Your task to perform on an android device: When is my next meeting? Image 0: 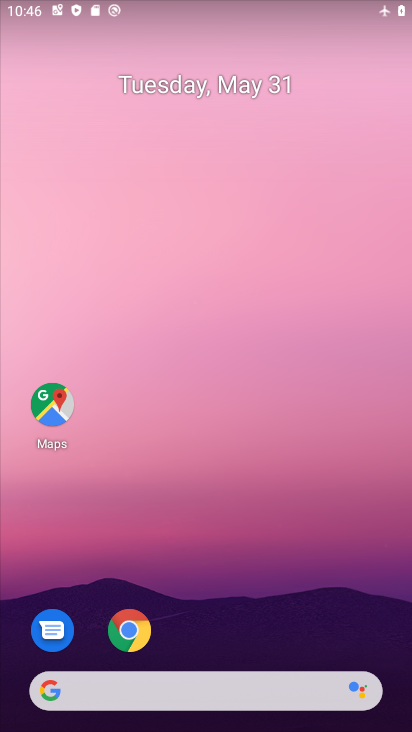
Step 0: drag from (226, 668) to (259, 117)
Your task to perform on an android device: When is my next meeting? Image 1: 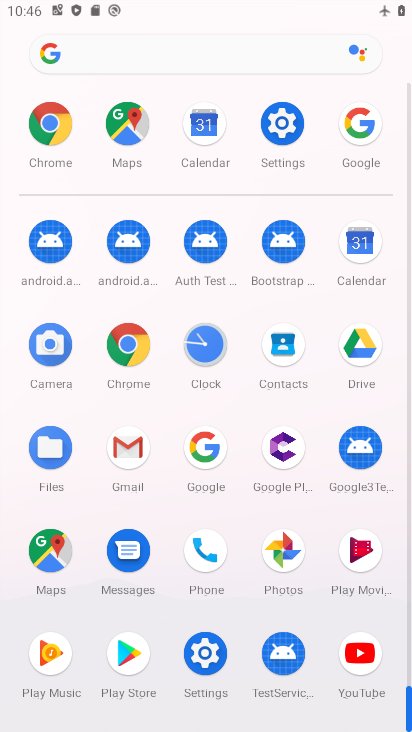
Step 1: click (283, 157)
Your task to perform on an android device: When is my next meeting? Image 2: 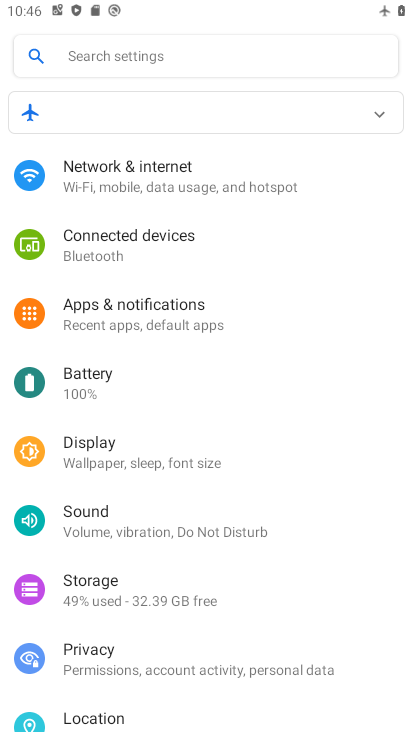
Step 2: drag from (229, 481) to (249, 291)
Your task to perform on an android device: When is my next meeting? Image 3: 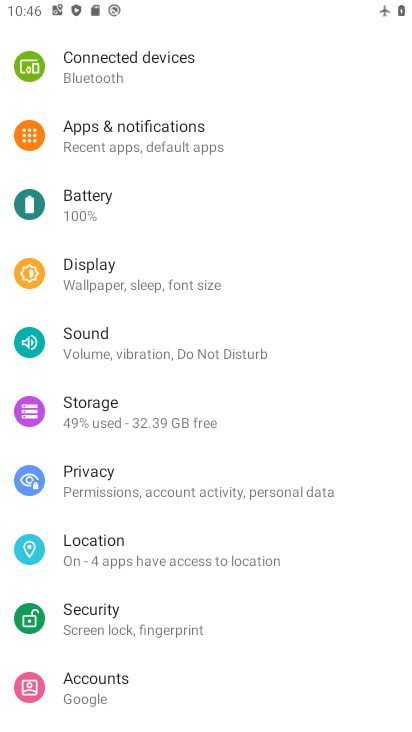
Step 3: press home button
Your task to perform on an android device: When is my next meeting? Image 4: 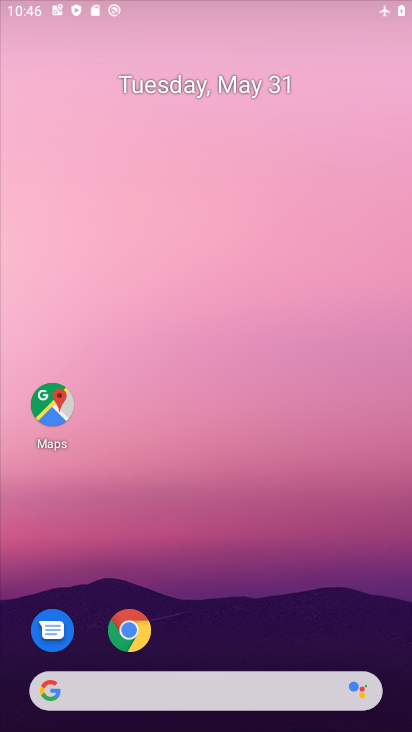
Step 4: drag from (181, 576) to (194, 217)
Your task to perform on an android device: When is my next meeting? Image 5: 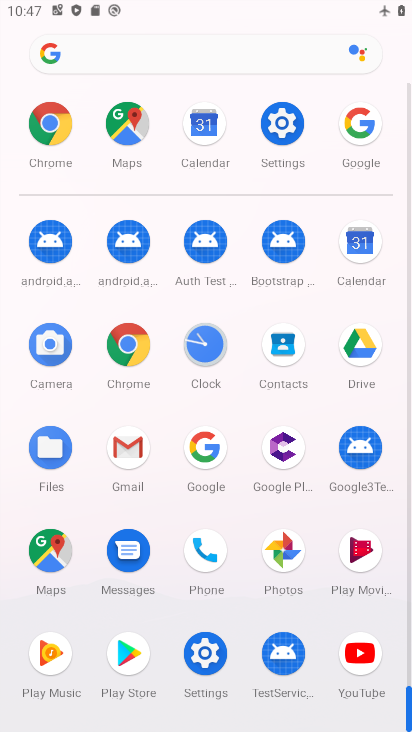
Step 5: click (367, 262)
Your task to perform on an android device: When is my next meeting? Image 6: 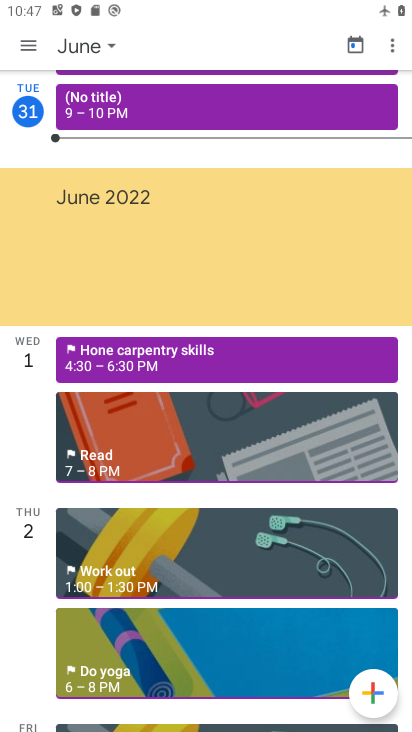
Step 6: click (31, 36)
Your task to perform on an android device: When is my next meeting? Image 7: 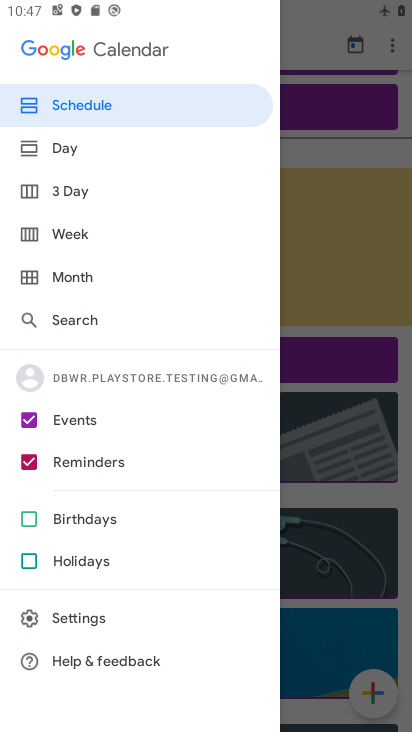
Step 7: click (374, 197)
Your task to perform on an android device: When is my next meeting? Image 8: 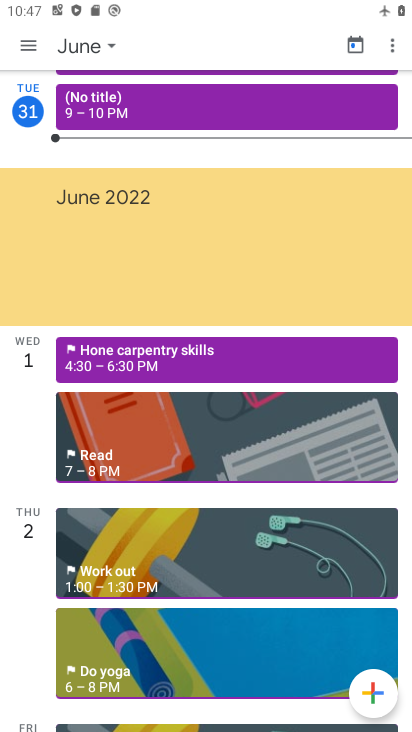
Step 8: task complete